Your task to perform on an android device: Open Maps and search for coffee Image 0: 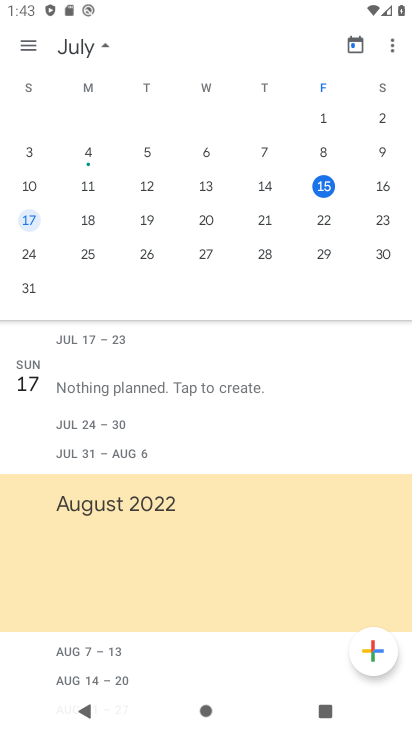
Step 0: press home button
Your task to perform on an android device: Open Maps and search for coffee Image 1: 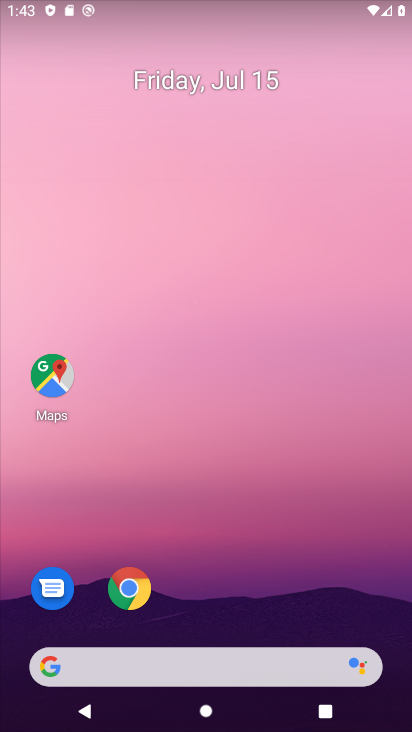
Step 1: click (49, 396)
Your task to perform on an android device: Open Maps and search for coffee Image 2: 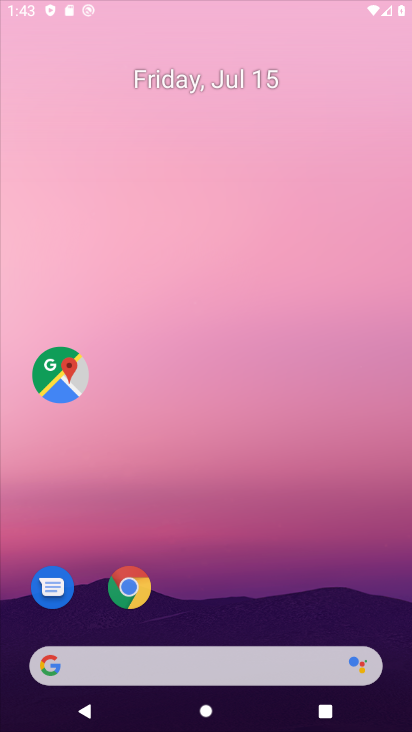
Step 2: click (49, 396)
Your task to perform on an android device: Open Maps and search for coffee Image 3: 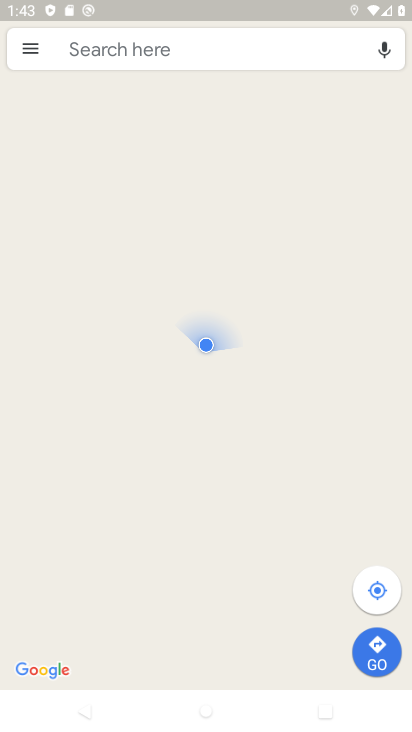
Step 3: click (140, 44)
Your task to perform on an android device: Open Maps and search for coffee Image 4: 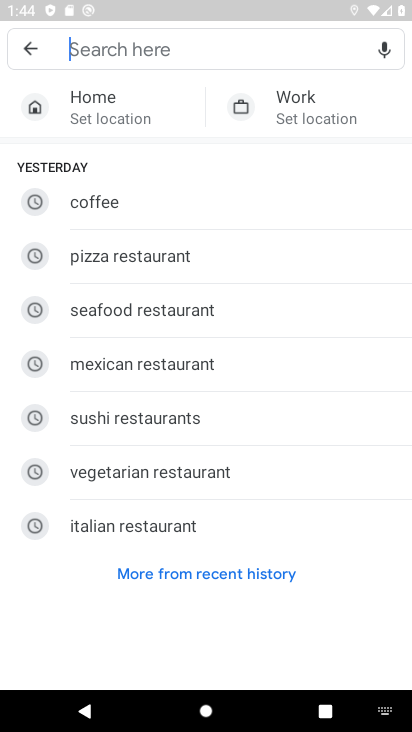
Step 4: type "coffee"
Your task to perform on an android device: Open Maps and search for coffee Image 5: 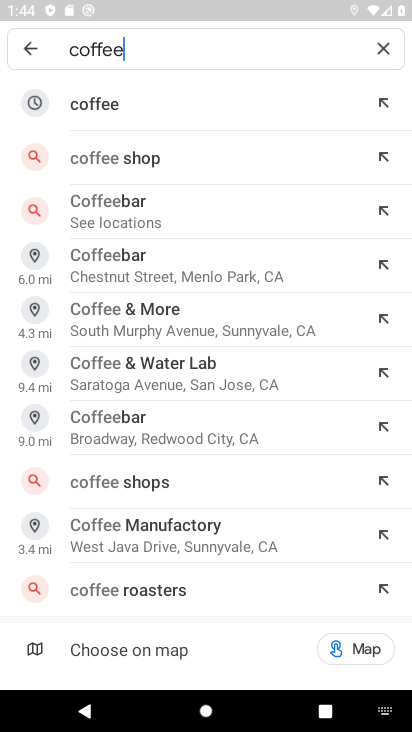
Step 5: click (203, 105)
Your task to perform on an android device: Open Maps and search for coffee Image 6: 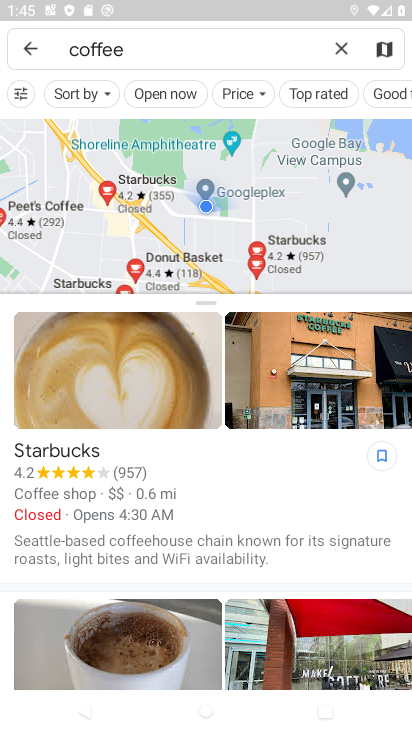
Step 6: task complete